Your task to perform on an android device: make emails show in primary in the gmail app Image 0: 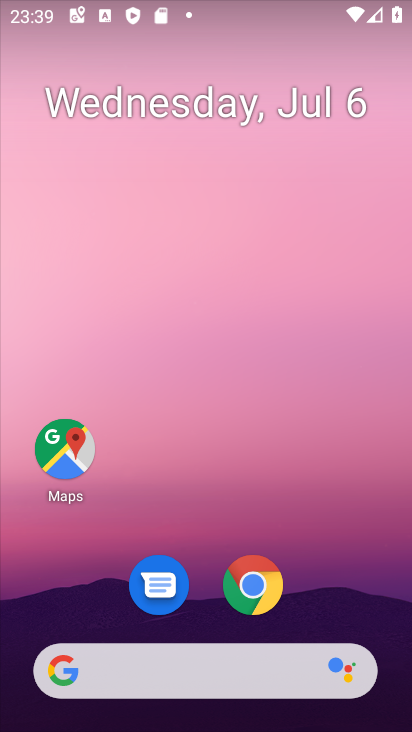
Step 0: drag from (249, 479) to (298, 3)
Your task to perform on an android device: make emails show in primary in the gmail app Image 1: 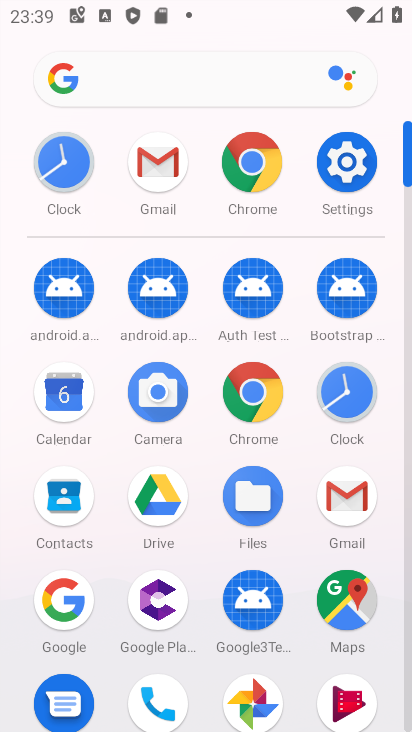
Step 1: click (169, 171)
Your task to perform on an android device: make emails show in primary in the gmail app Image 2: 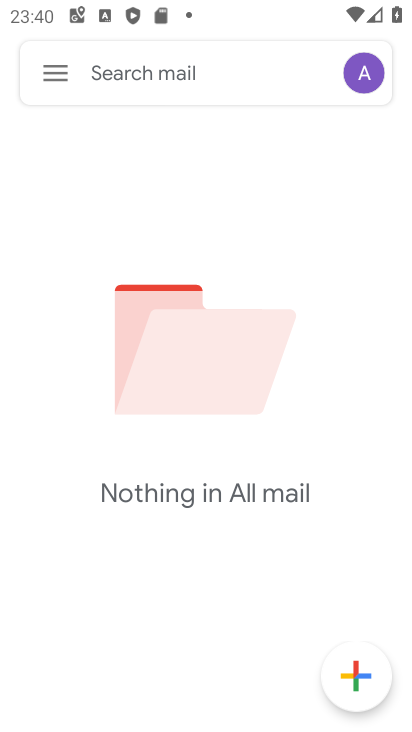
Step 2: click (56, 69)
Your task to perform on an android device: make emails show in primary in the gmail app Image 3: 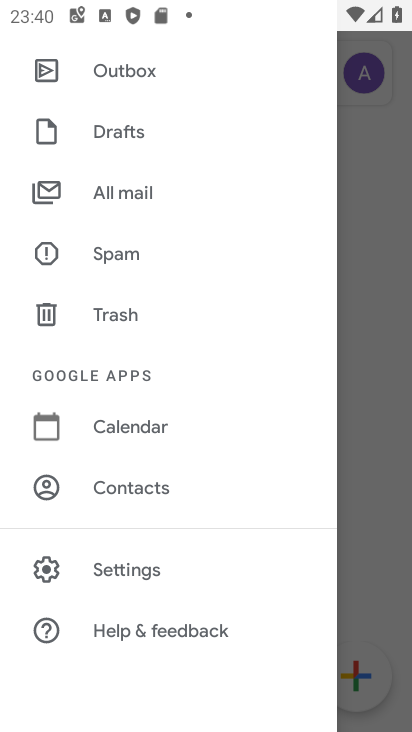
Step 3: click (149, 569)
Your task to perform on an android device: make emails show in primary in the gmail app Image 4: 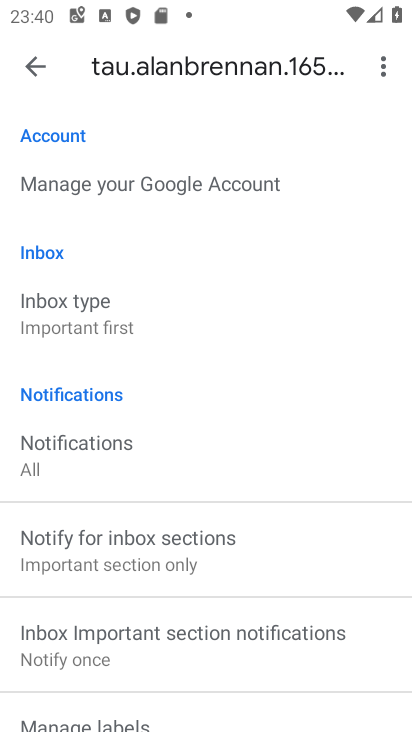
Step 4: click (113, 308)
Your task to perform on an android device: make emails show in primary in the gmail app Image 5: 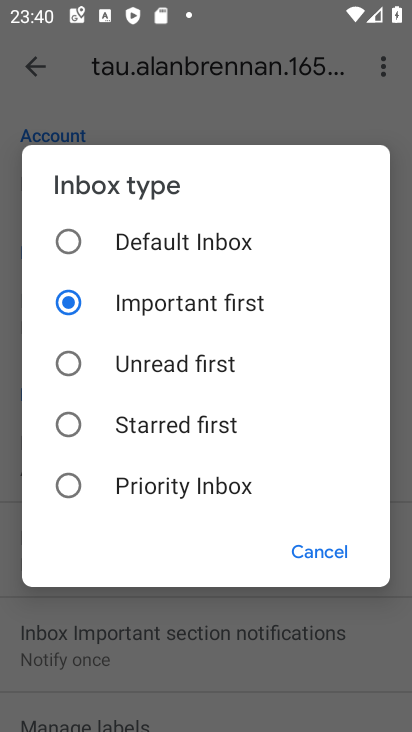
Step 5: click (73, 241)
Your task to perform on an android device: make emails show in primary in the gmail app Image 6: 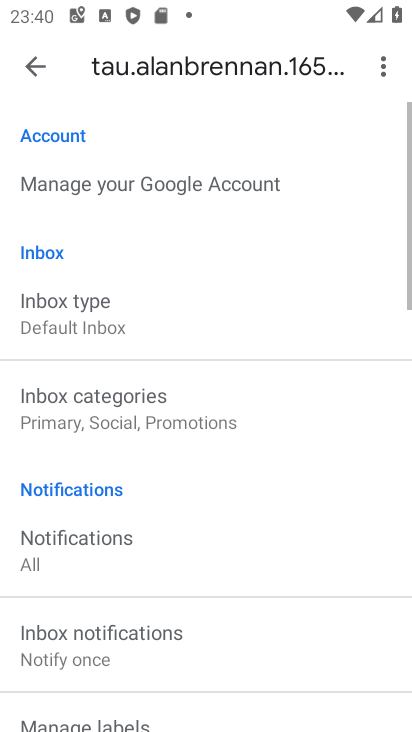
Step 6: click (97, 424)
Your task to perform on an android device: make emails show in primary in the gmail app Image 7: 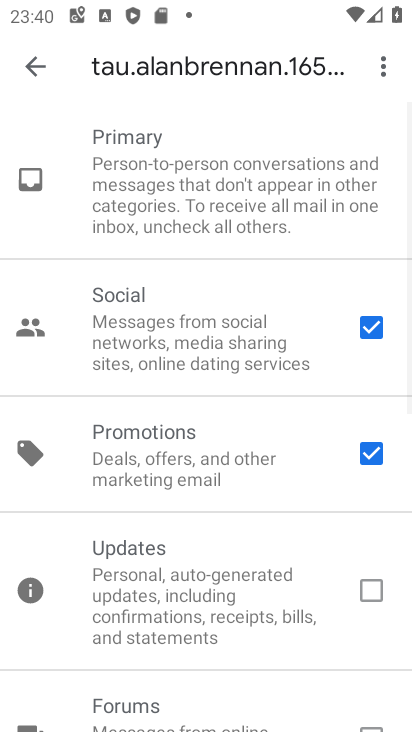
Step 7: click (372, 451)
Your task to perform on an android device: make emails show in primary in the gmail app Image 8: 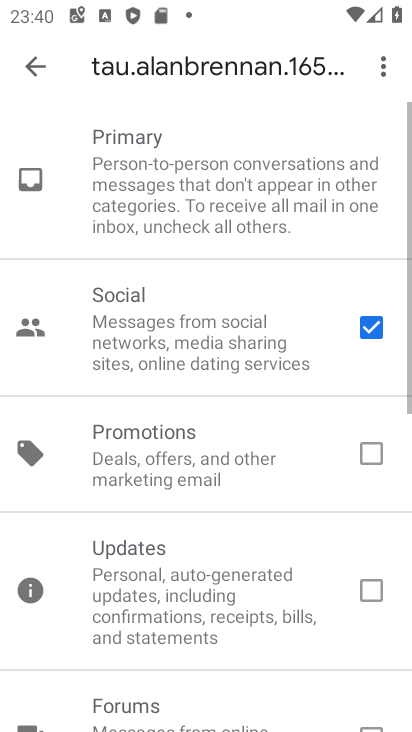
Step 8: click (369, 323)
Your task to perform on an android device: make emails show in primary in the gmail app Image 9: 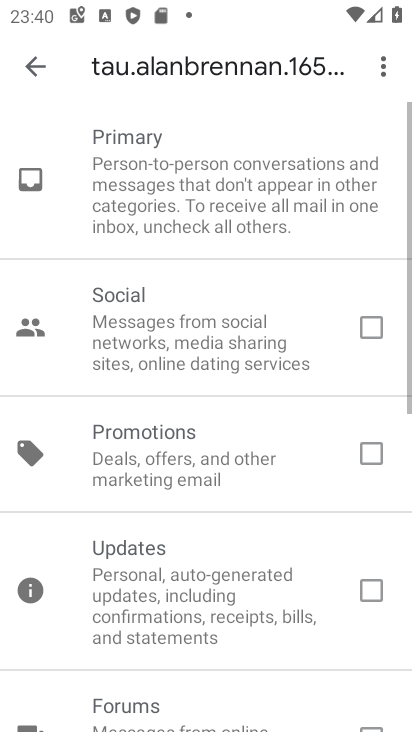
Step 9: click (34, 55)
Your task to perform on an android device: make emails show in primary in the gmail app Image 10: 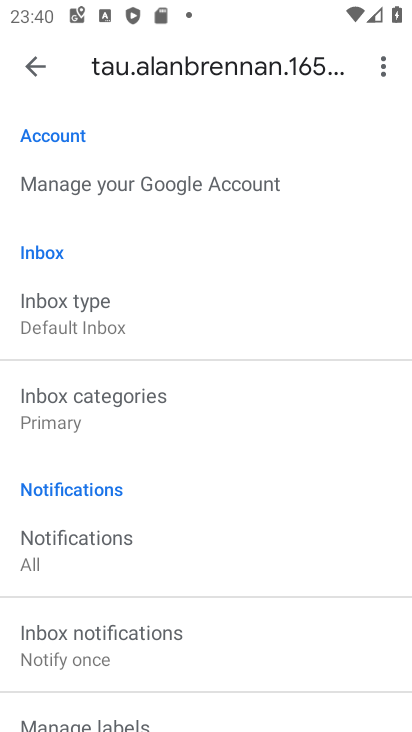
Step 10: task complete